Your task to perform on an android device: find which apps use the phone's location Image 0: 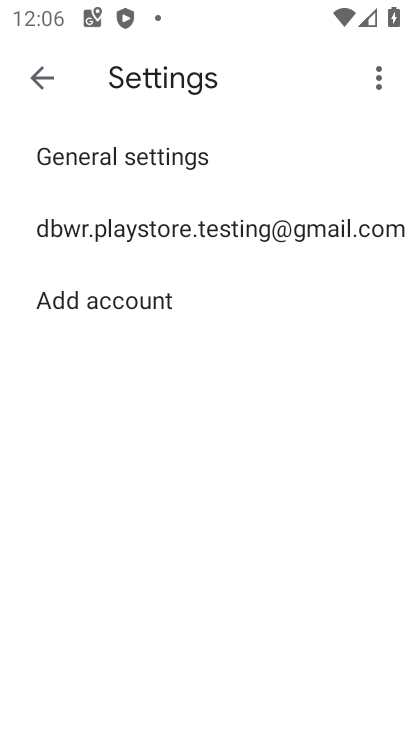
Step 0: press home button
Your task to perform on an android device: find which apps use the phone's location Image 1: 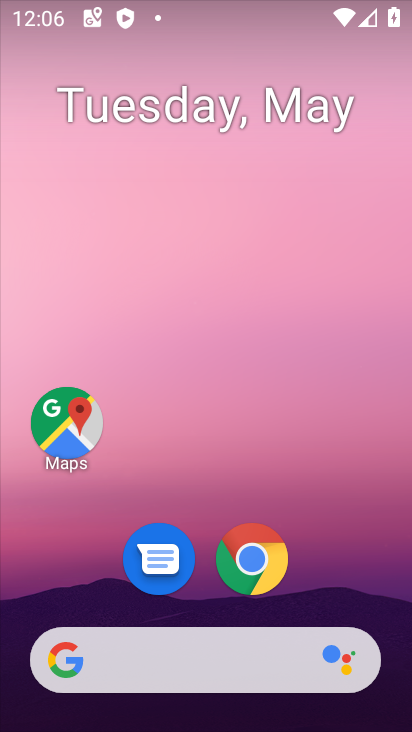
Step 1: drag from (343, 550) to (352, 141)
Your task to perform on an android device: find which apps use the phone's location Image 2: 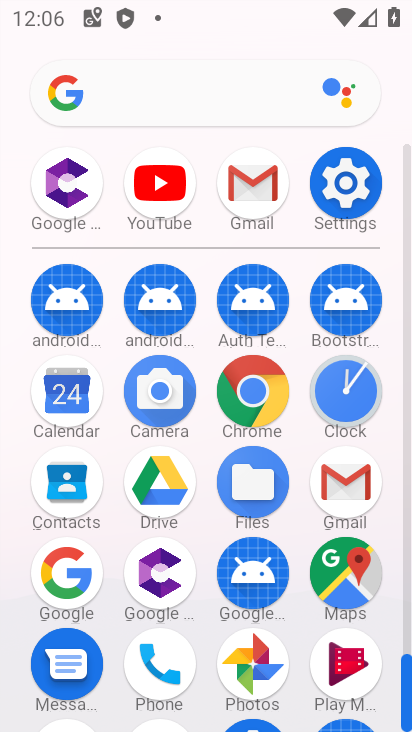
Step 2: click (365, 157)
Your task to perform on an android device: find which apps use the phone's location Image 3: 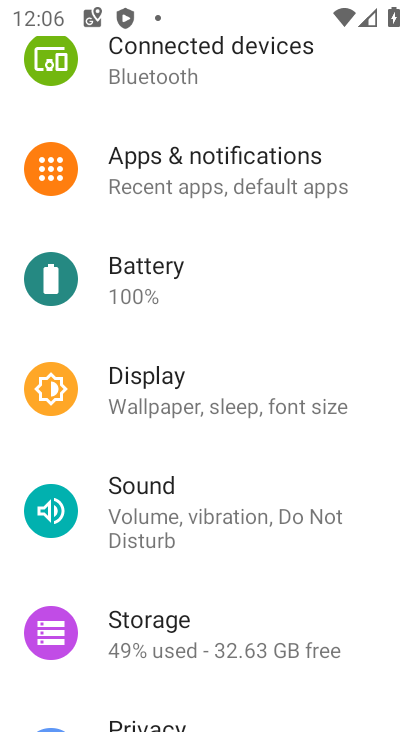
Step 3: drag from (272, 685) to (308, 181)
Your task to perform on an android device: find which apps use the phone's location Image 4: 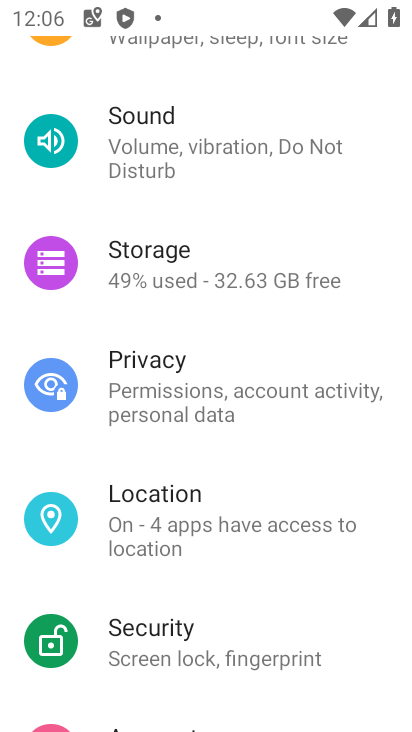
Step 4: click (212, 574)
Your task to perform on an android device: find which apps use the phone's location Image 5: 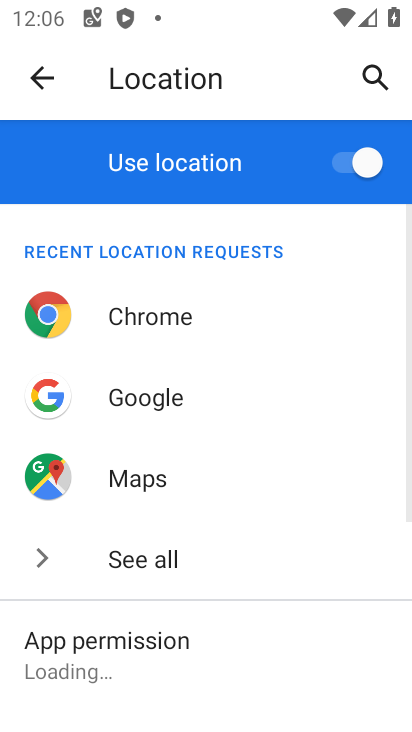
Step 5: task complete